Your task to perform on an android device: check battery use Image 0: 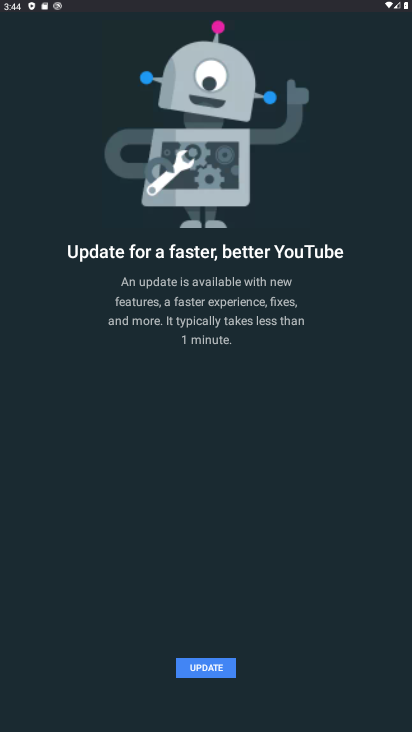
Step 0: press home button
Your task to perform on an android device: check battery use Image 1: 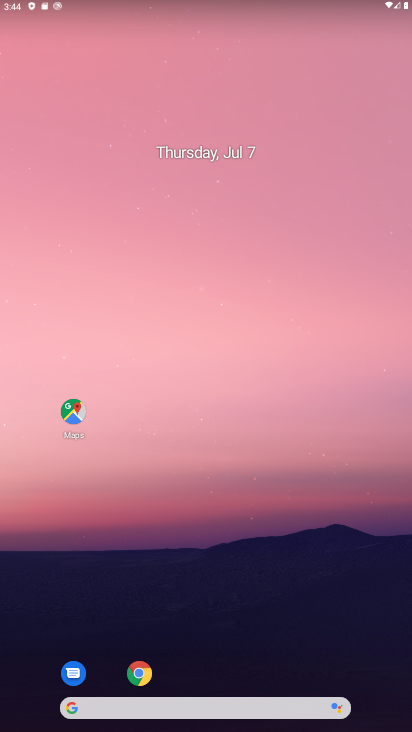
Step 1: drag from (222, 670) to (221, 61)
Your task to perform on an android device: check battery use Image 2: 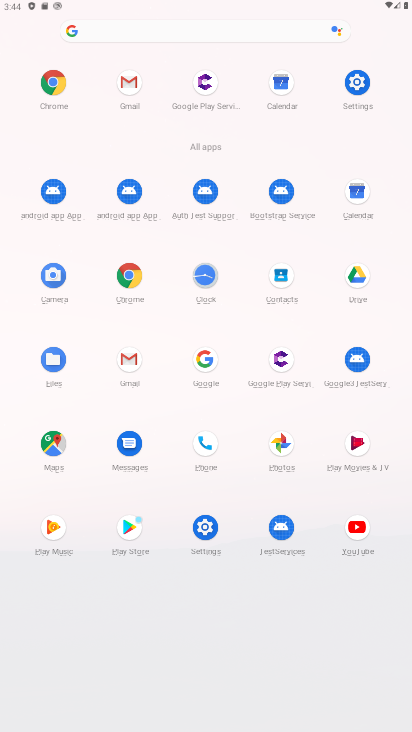
Step 2: click (365, 85)
Your task to perform on an android device: check battery use Image 3: 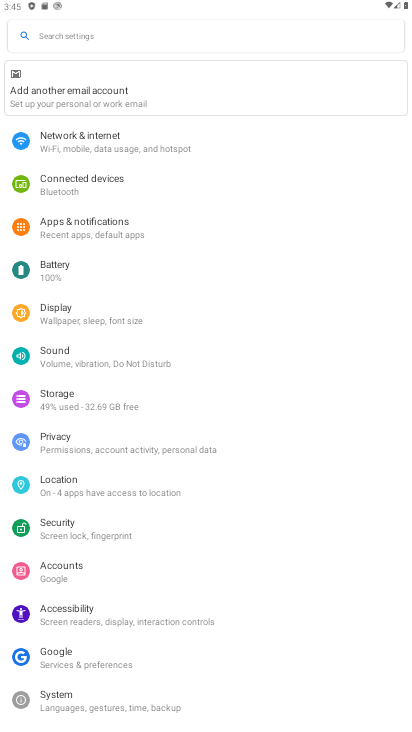
Step 3: click (65, 266)
Your task to perform on an android device: check battery use Image 4: 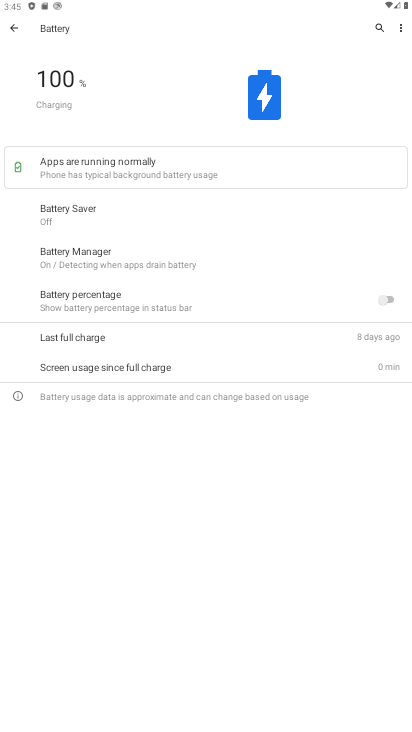
Step 4: click (400, 26)
Your task to perform on an android device: check battery use Image 5: 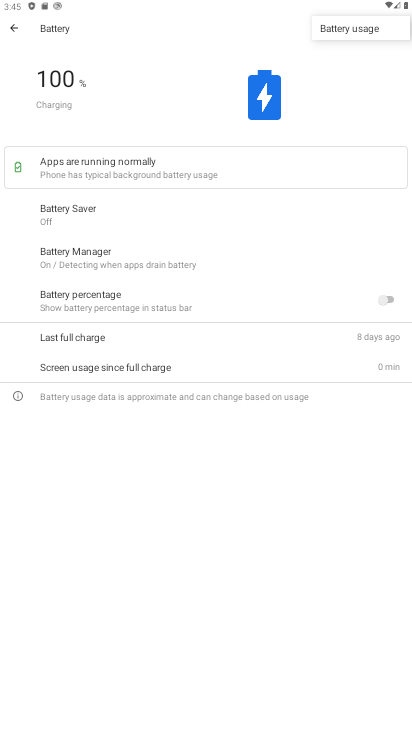
Step 5: click (337, 25)
Your task to perform on an android device: check battery use Image 6: 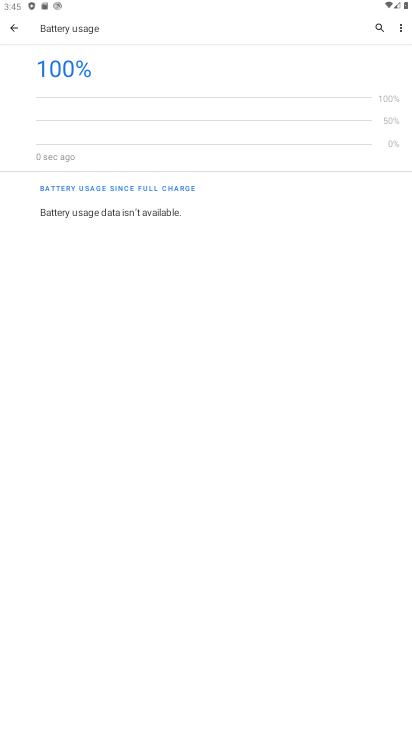
Step 6: task complete